Your task to perform on an android device: Go to display settings Image 0: 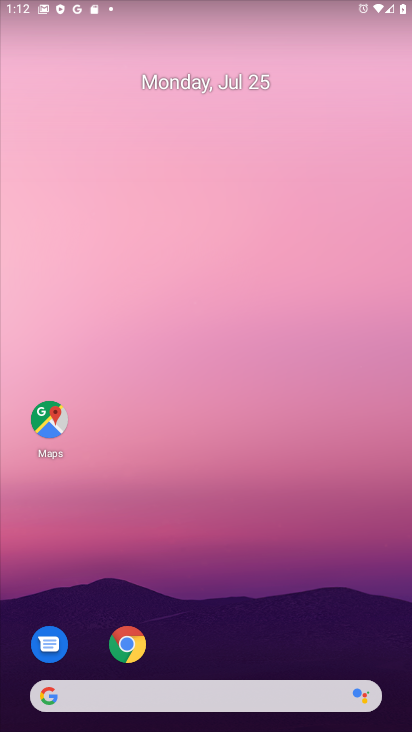
Step 0: drag from (249, 637) to (323, 9)
Your task to perform on an android device: Go to display settings Image 1: 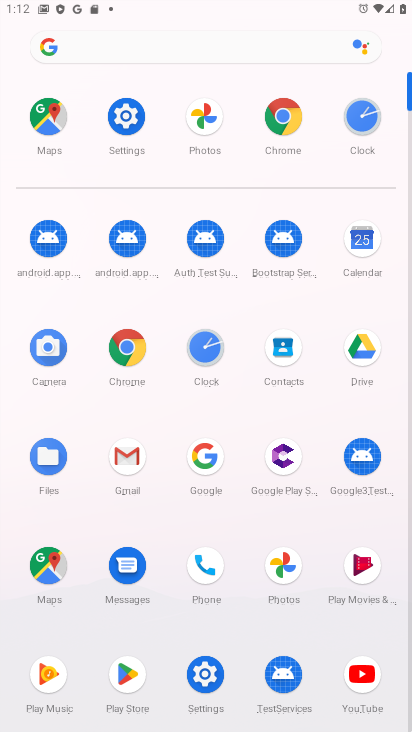
Step 1: click (131, 132)
Your task to perform on an android device: Go to display settings Image 2: 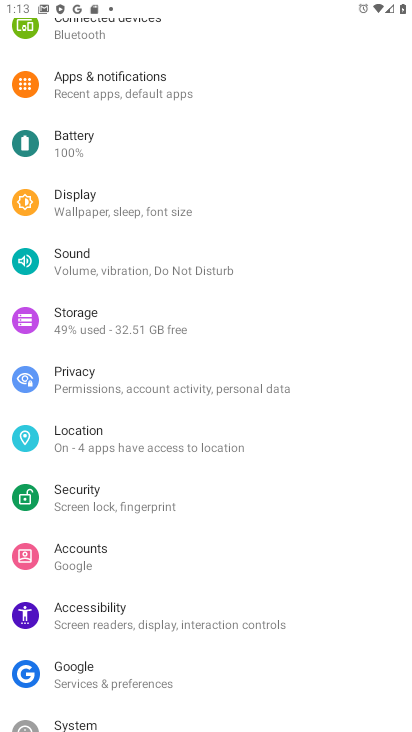
Step 2: click (108, 200)
Your task to perform on an android device: Go to display settings Image 3: 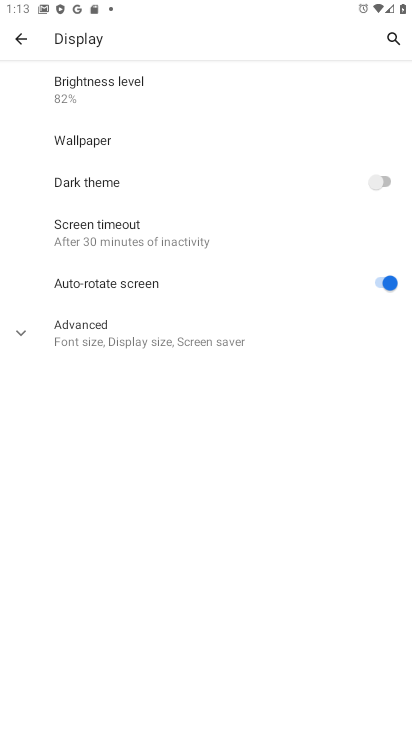
Step 3: task complete